Your task to perform on an android device: Turn off the flashlight Image 0: 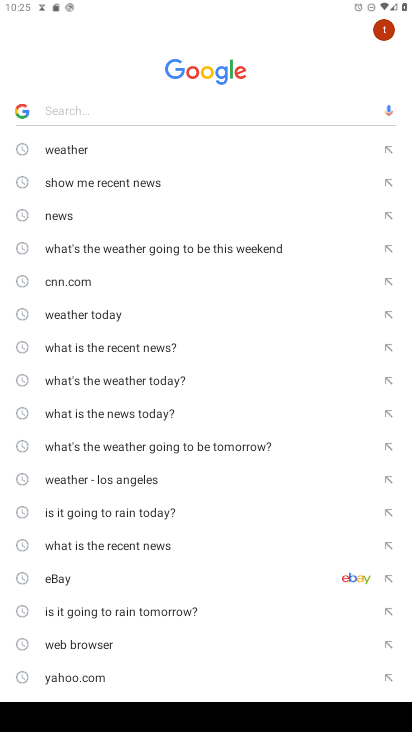
Step 0: press home button
Your task to perform on an android device: Turn off the flashlight Image 1: 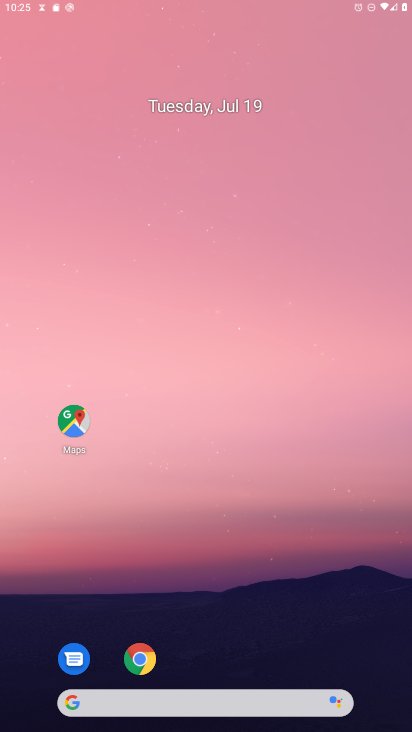
Step 1: drag from (216, 646) to (216, 246)
Your task to perform on an android device: Turn off the flashlight Image 2: 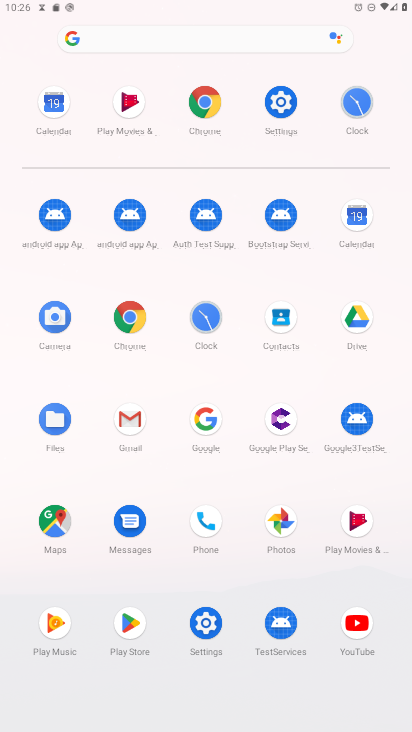
Step 2: click (284, 96)
Your task to perform on an android device: Turn off the flashlight Image 3: 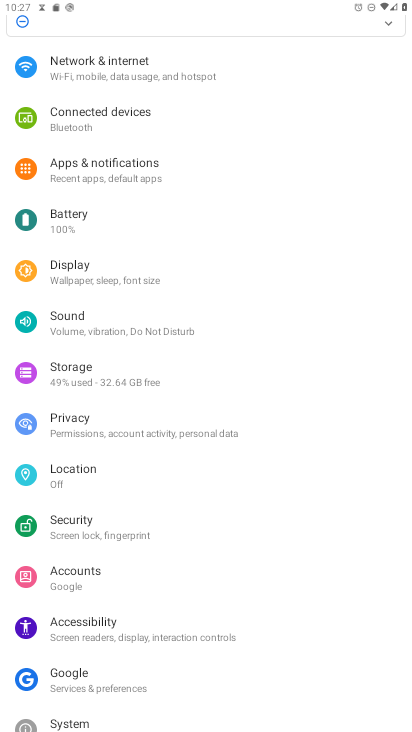
Step 3: task complete